Your task to perform on an android device: change alarm snooze length Image 0: 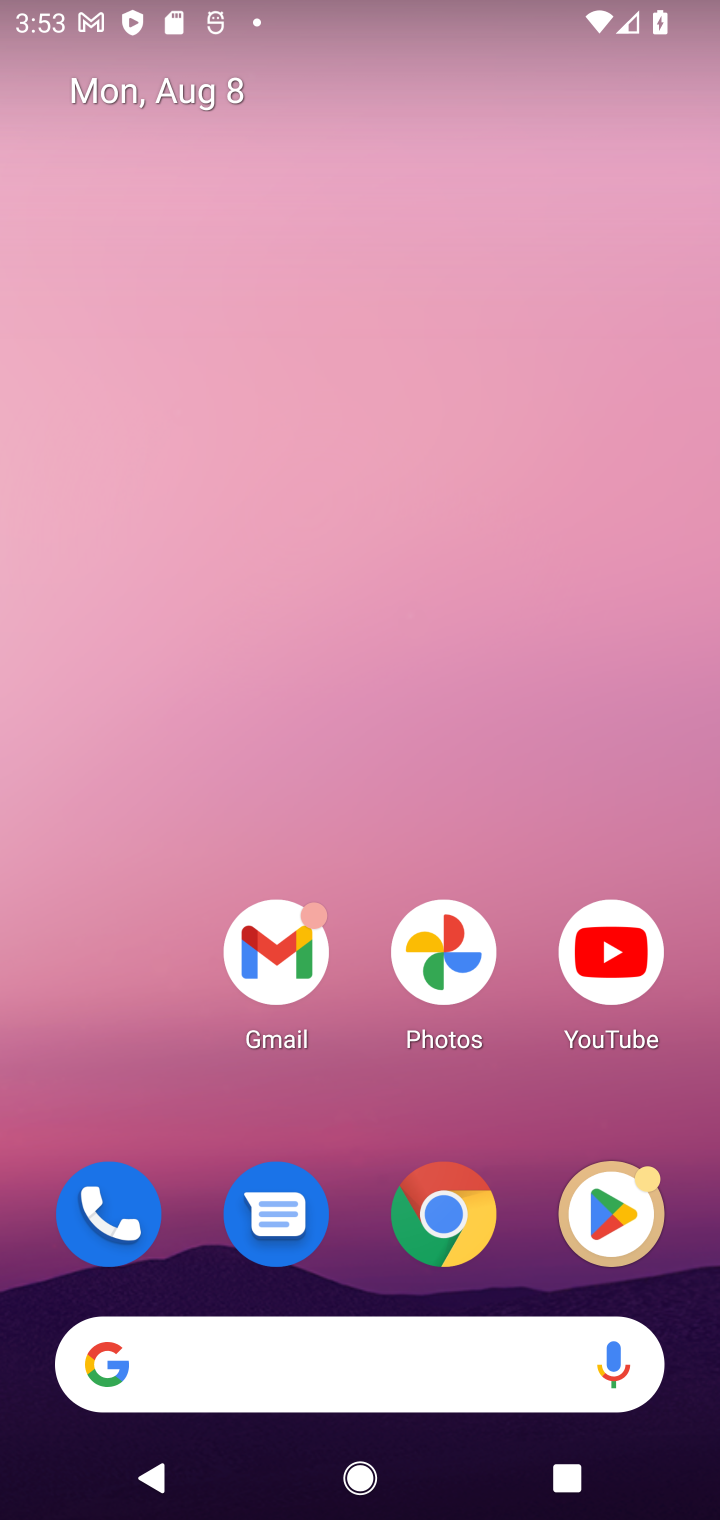
Step 0: drag from (448, 948) to (433, 75)
Your task to perform on an android device: change alarm snooze length Image 1: 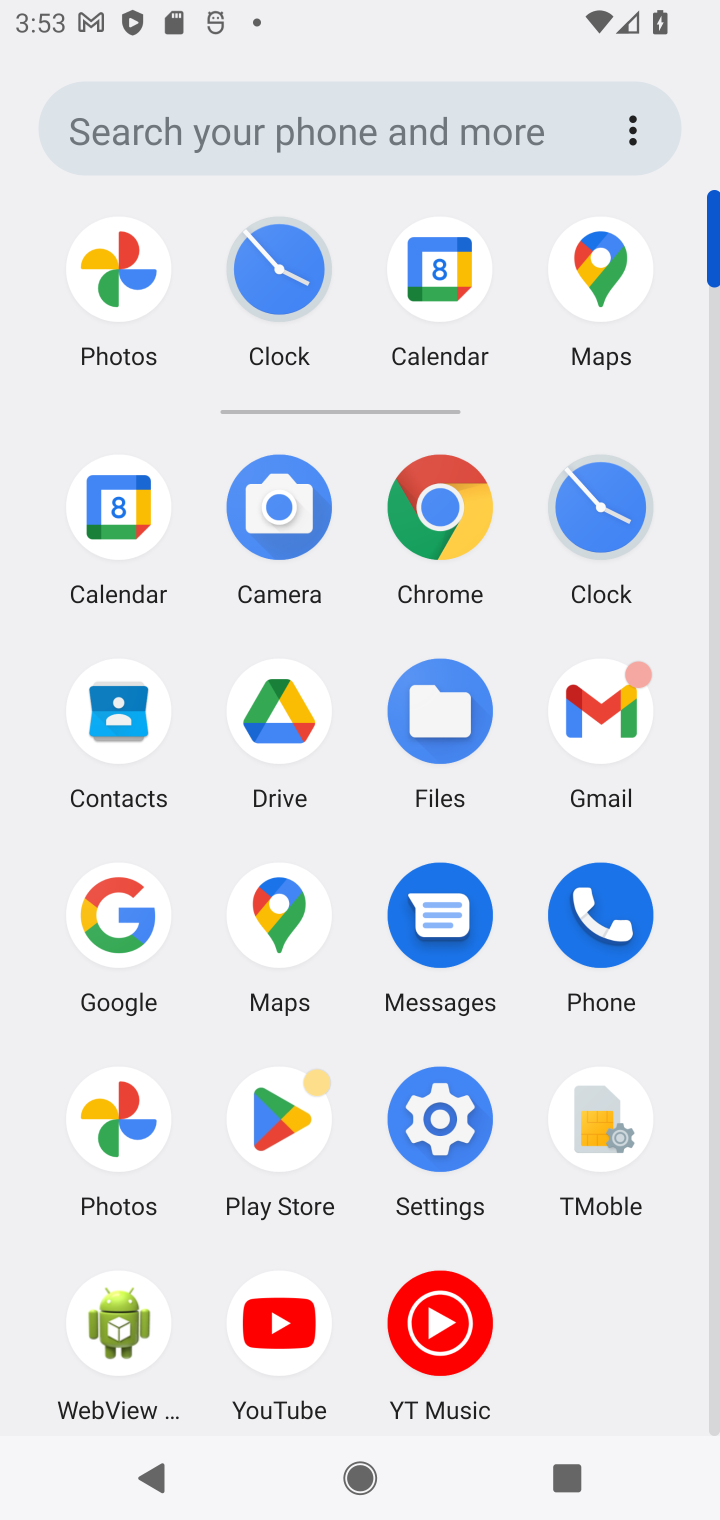
Step 1: click (621, 498)
Your task to perform on an android device: change alarm snooze length Image 2: 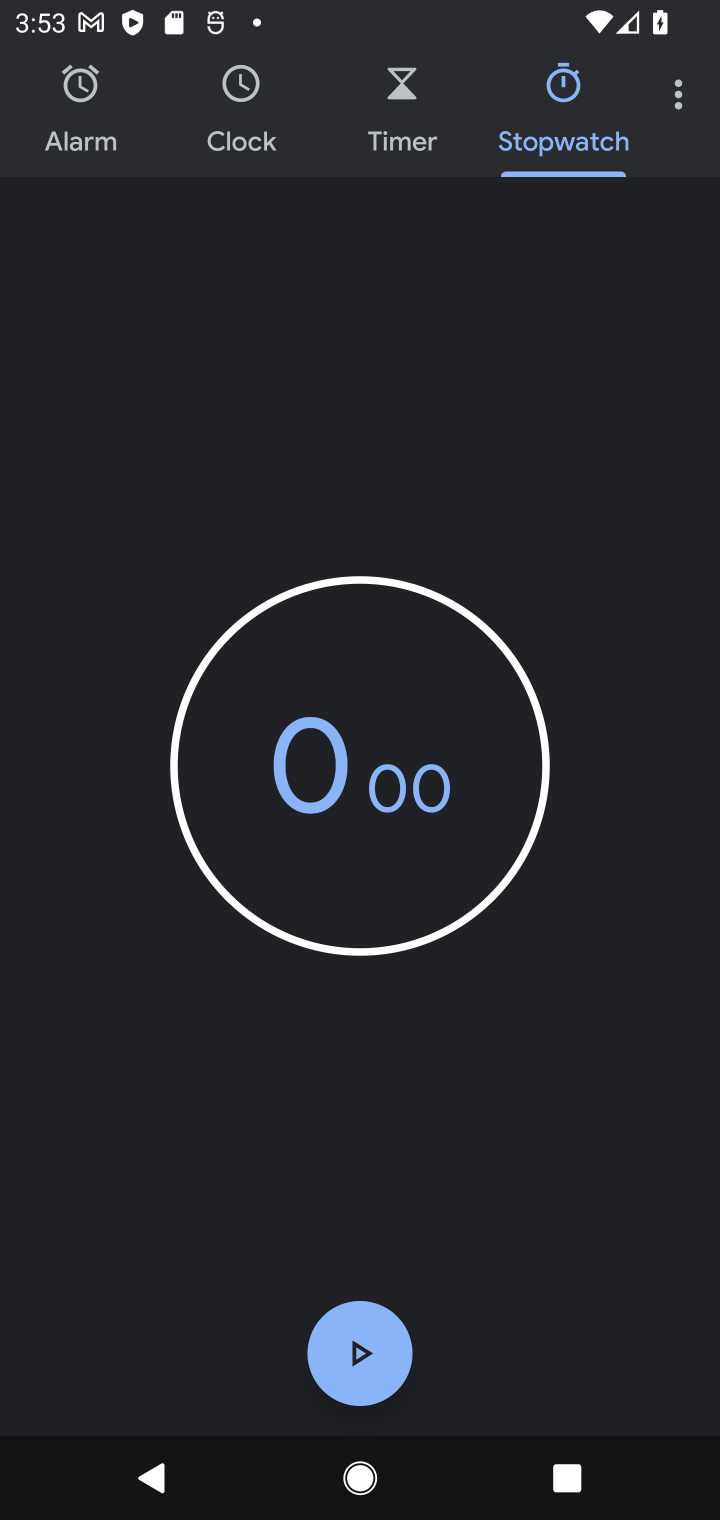
Step 2: click (678, 101)
Your task to perform on an android device: change alarm snooze length Image 3: 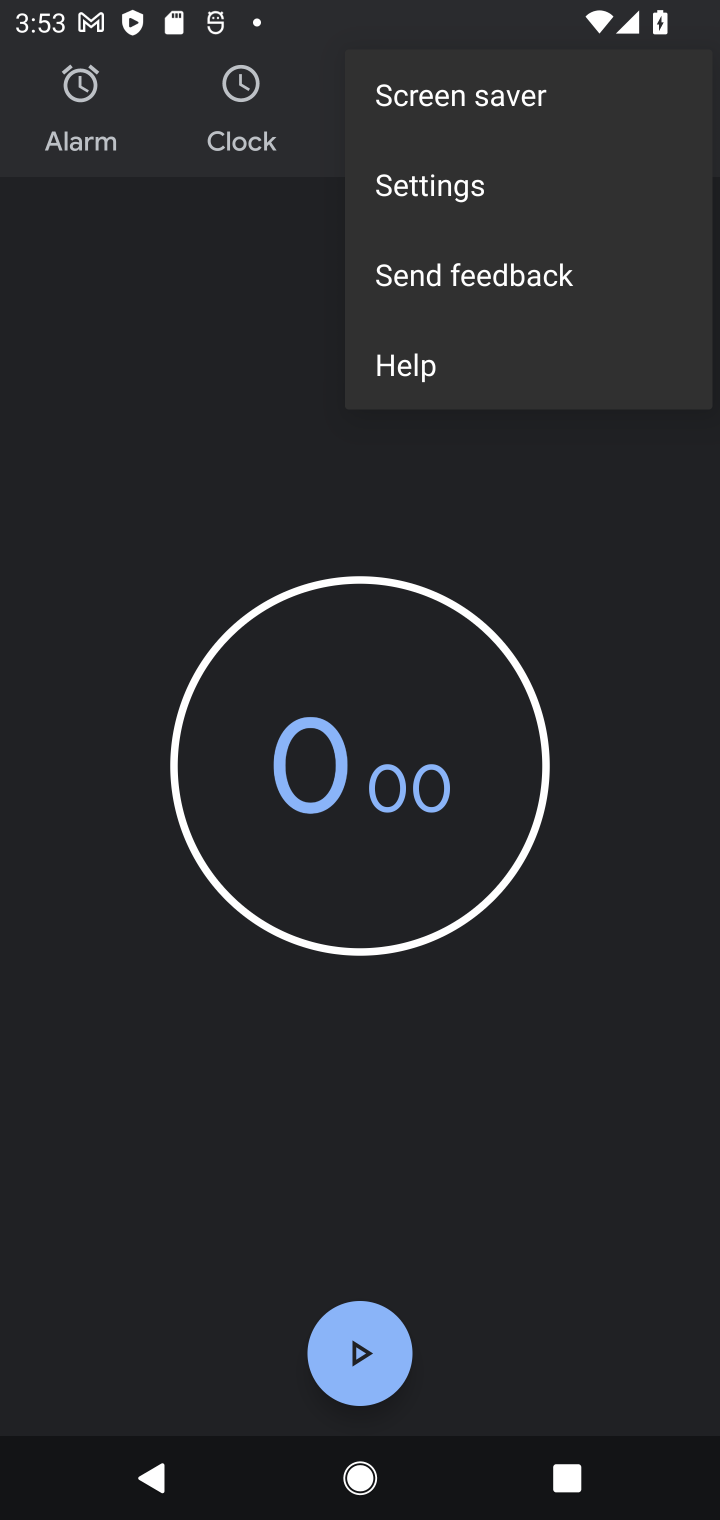
Step 3: click (422, 194)
Your task to perform on an android device: change alarm snooze length Image 4: 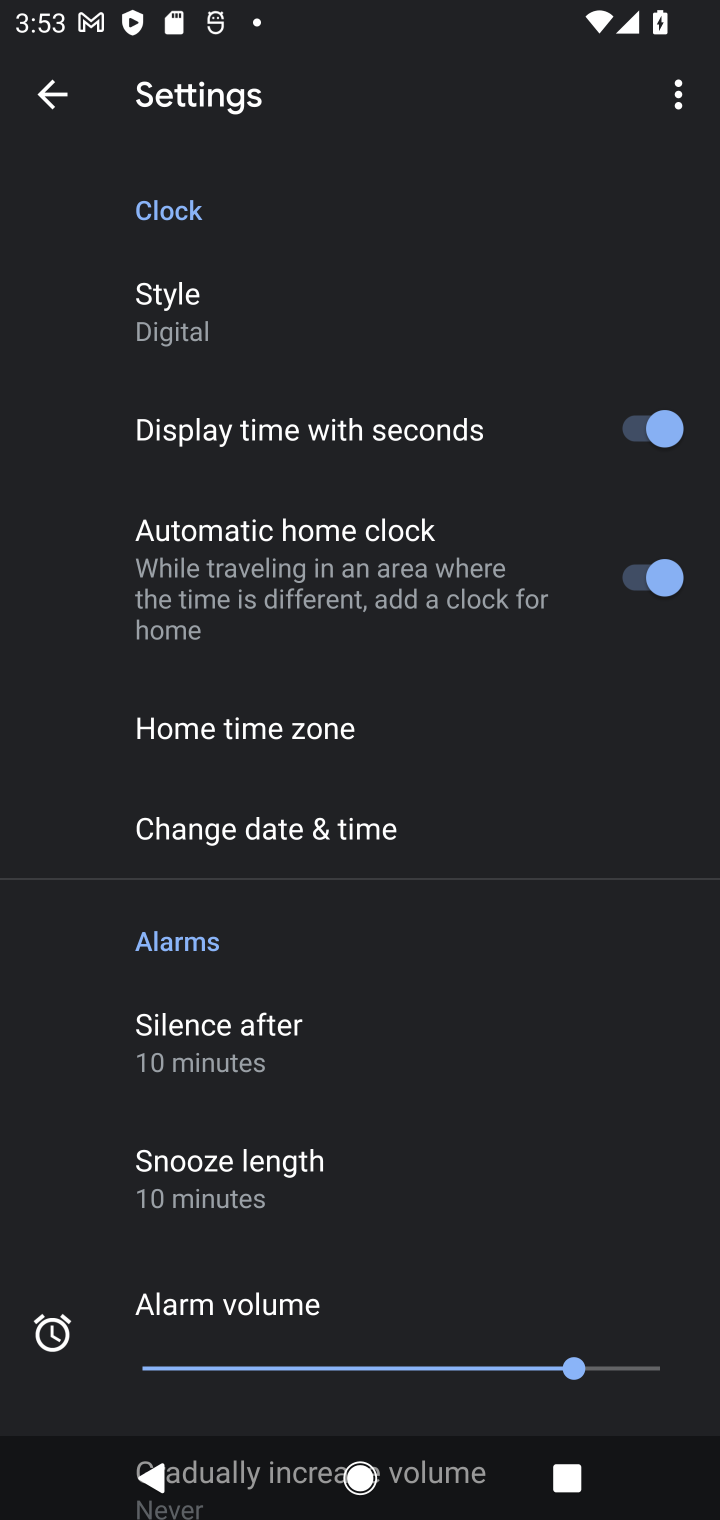
Step 4: click (210, 1162)
Your task to perform on an android device: change alarm snooze length Image 5: 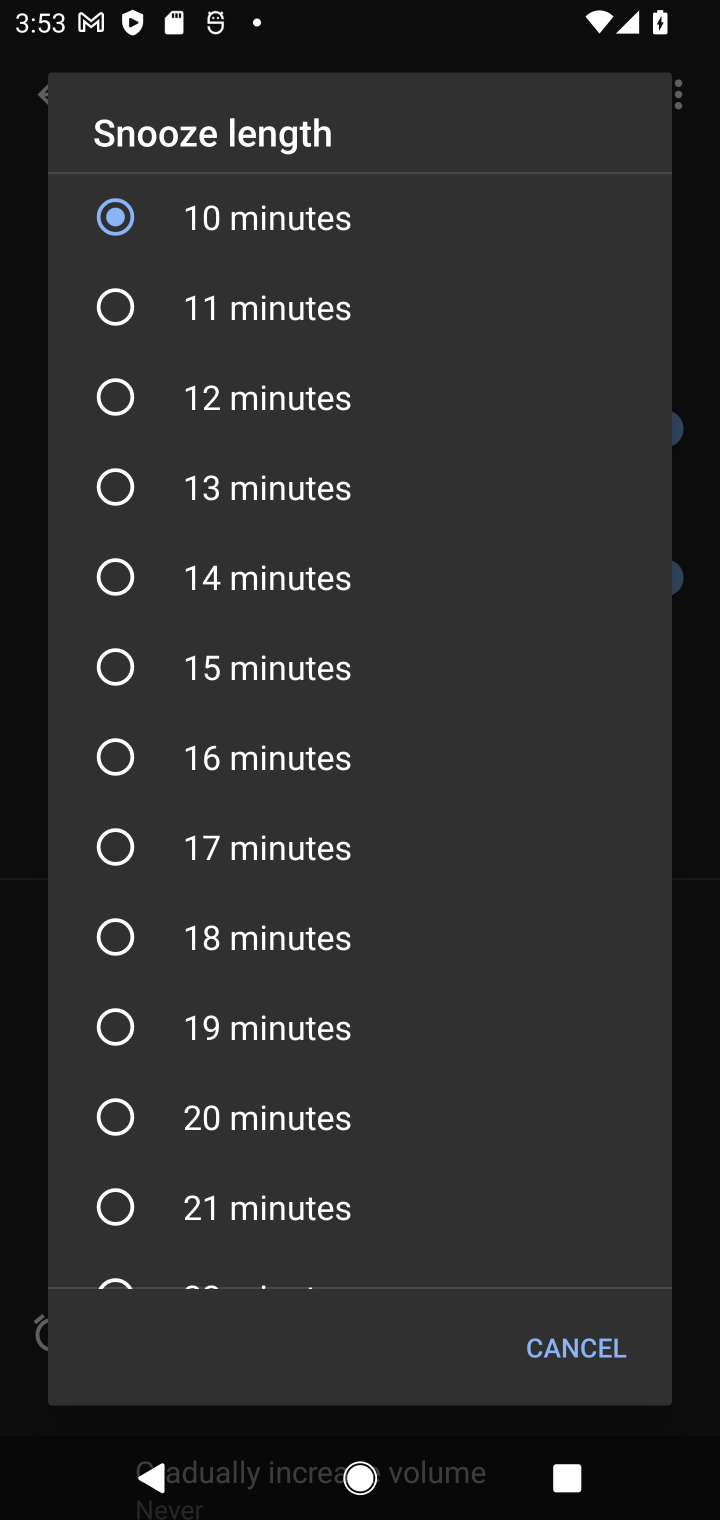
Step 5: click (119, 1019)
Your task to perform on an android device: change alarm snooze length Image 6: 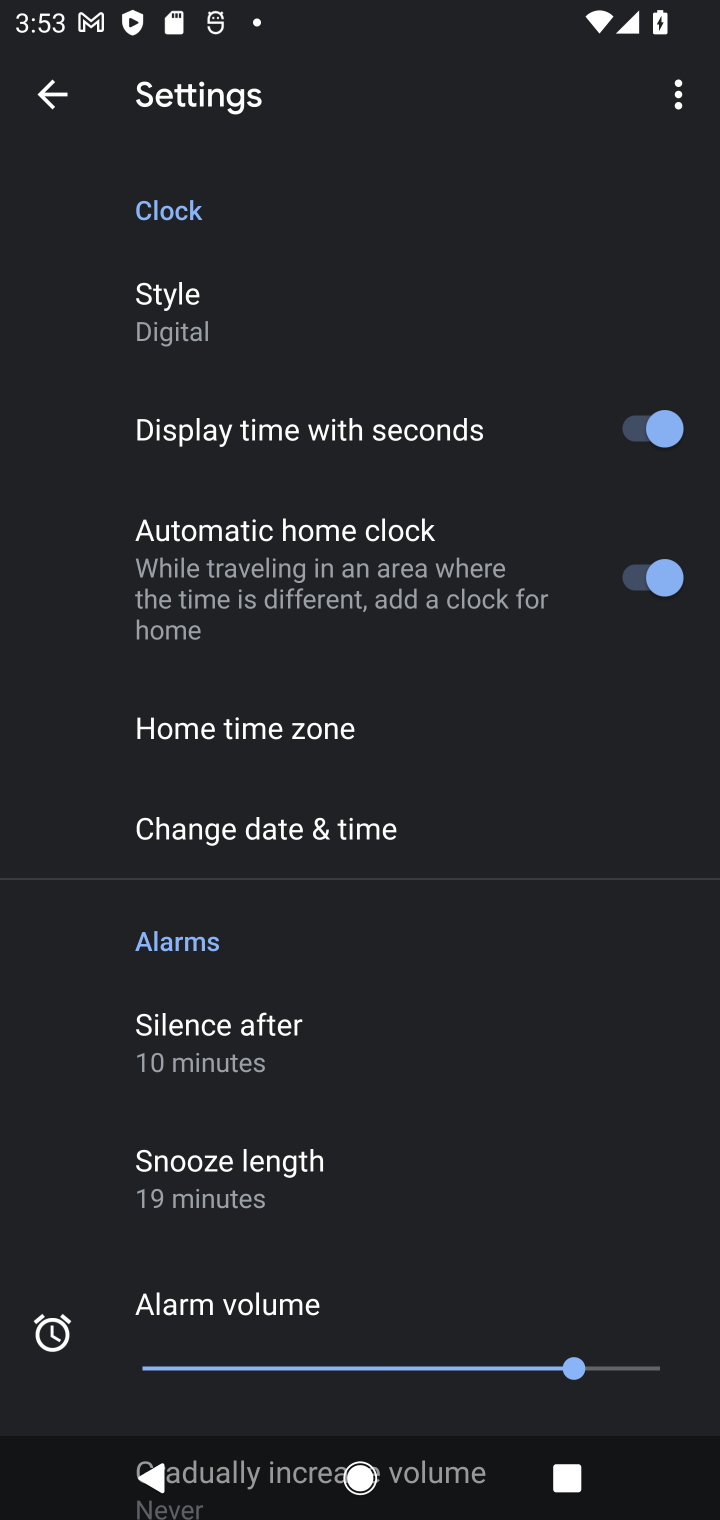
Step 6: task complete